Your task to perform on an android device: delete a single message in the gmail app Image 0: 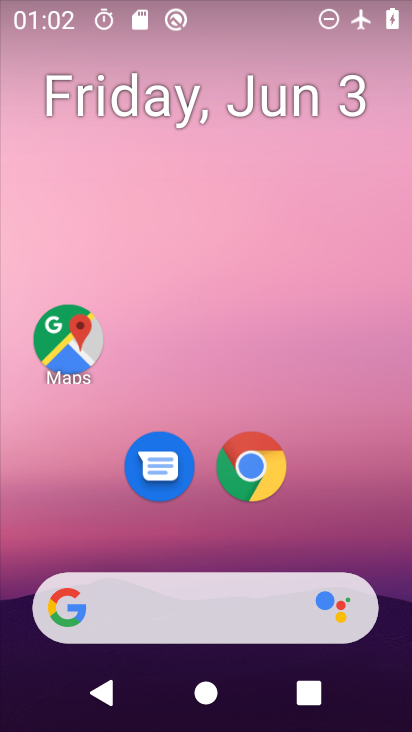
Step 0: drag from (198, 539) to (201, 152)
Your task to perform on an android device: delete a single message in the gmail app Image 1: 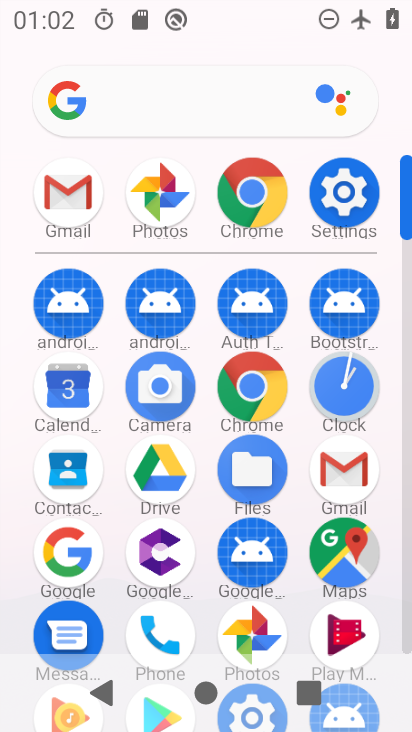
Step 1: click (345, 466)
Your task to perform on an android device: delete a single message in the gmail app Image 2: 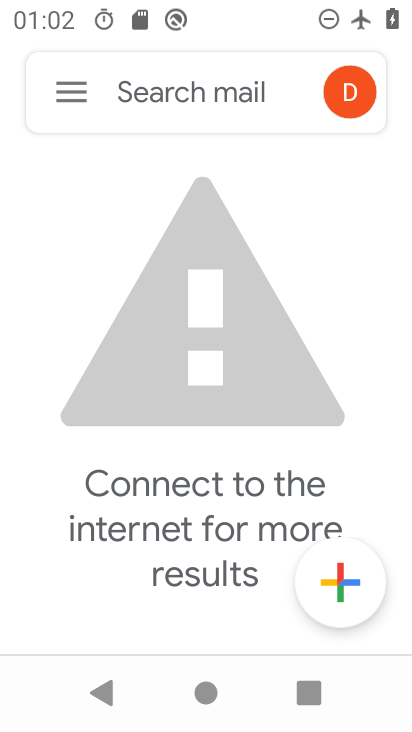
Step 2: click (81, 87)
Your task to perform on an android device: delete a single message in the gmail app Image 3: 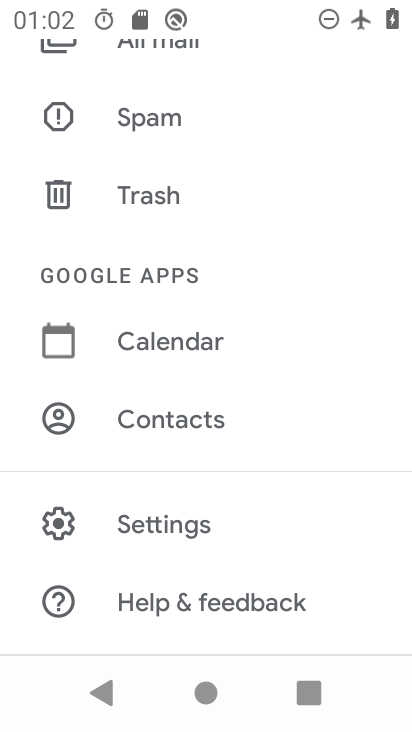
Step 3: drag from (150, 118) to (203, 438)
Your task to perform on an android device: delete a single message in the gmail app Image 4: 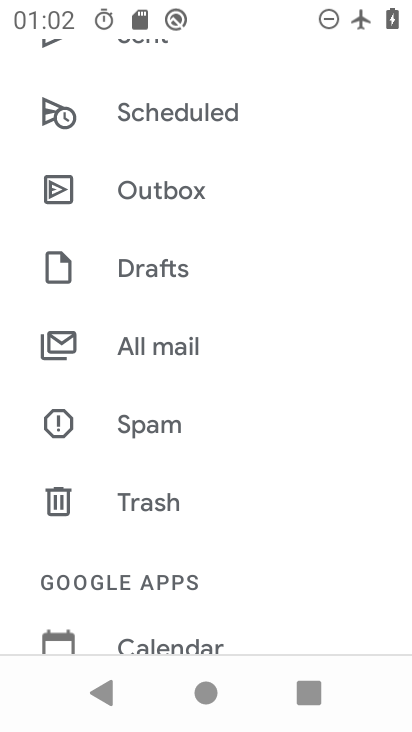
Step 4: drag from (163, 179) to (198, 464)
Your task to perform on an android device: delete a single message in the gmail app Image 5: 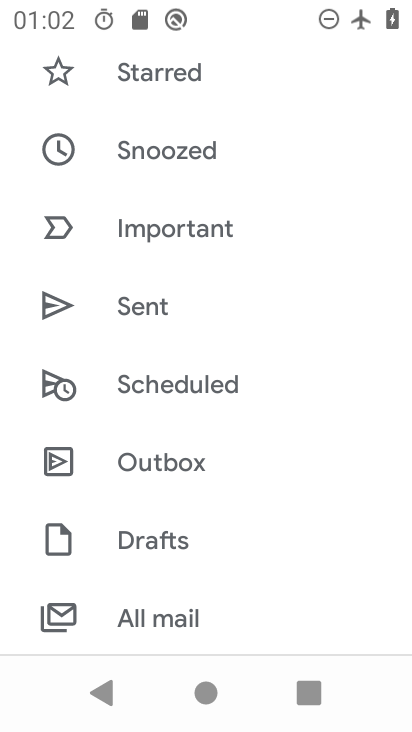
Step 5: drag from (239, 184) to (257, 485)
Your task to perform on an android device: delete a single message in the gmail app Image 6: 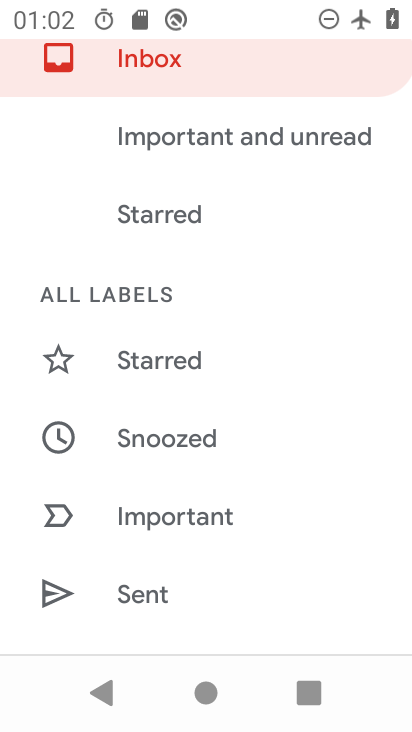
Step 6: drag from (234, 586) to (279, 247)
Your task to perform on an android device: delete a single message in the gmail app Image 7: 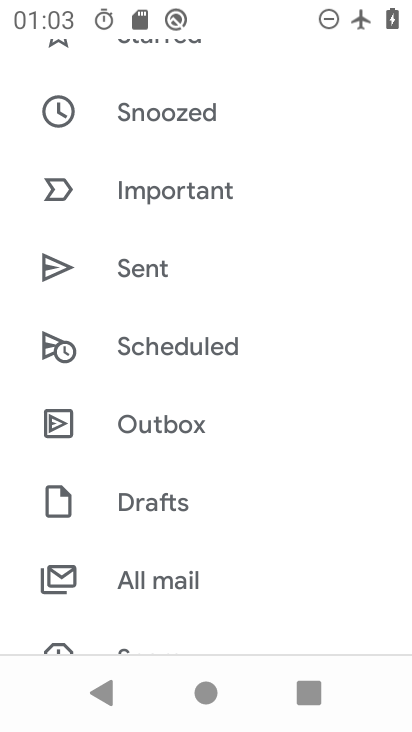
Step 7: drag from (230, 529) to (282, 192)
Your task to perform on an android device: delete a single message in the gmail app Image 8: 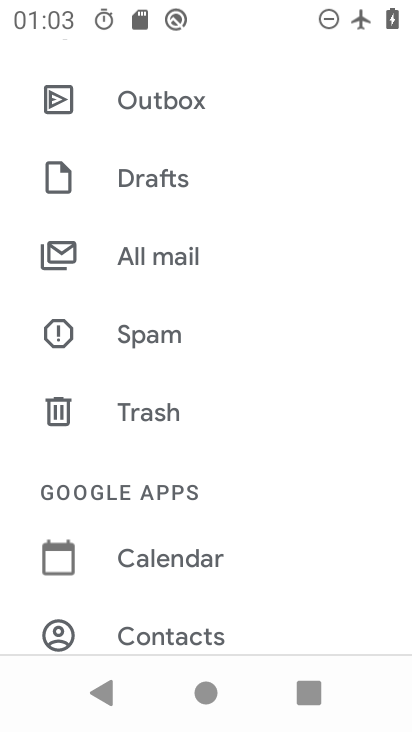
Step 8: click (193, 245)
Your task to perform on an android device: delete a single message in the gmail app Image 9: 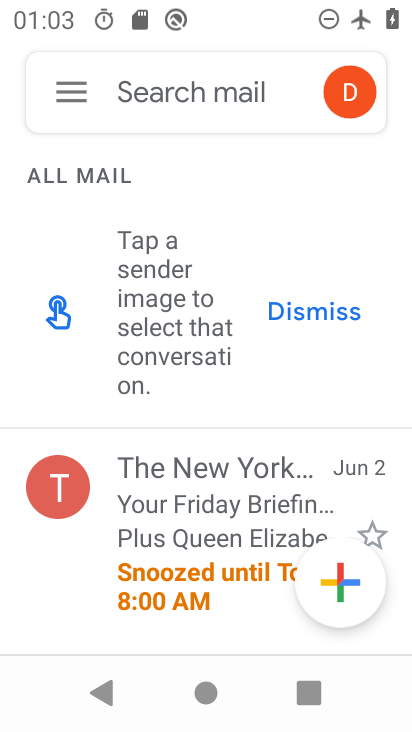
Step 9: click (255, 487)
Your task to perform on an android device: delete a single message in the gmail app Image 10: 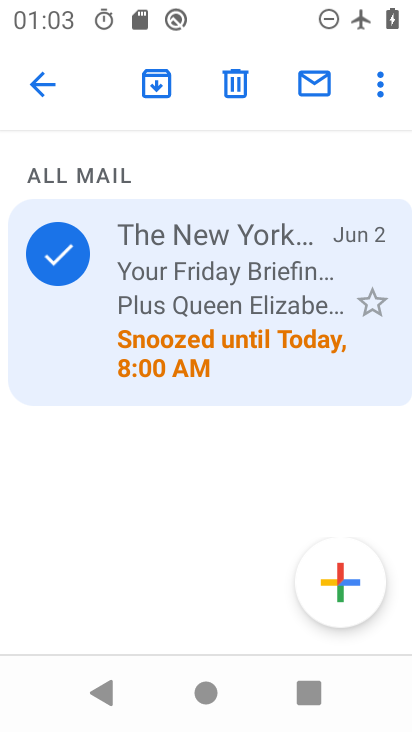
Step 10: click (378, 81)
Your task to perform on an android device: delete a single message in the gmail app Image 11: 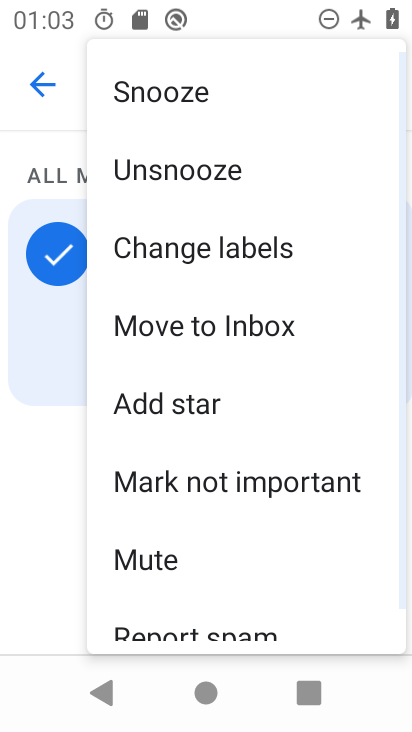
Step 11: drag from (224, 565) to (239, 263)
Your task to perform on an android device: delete a single message in the gmail app Image 12: 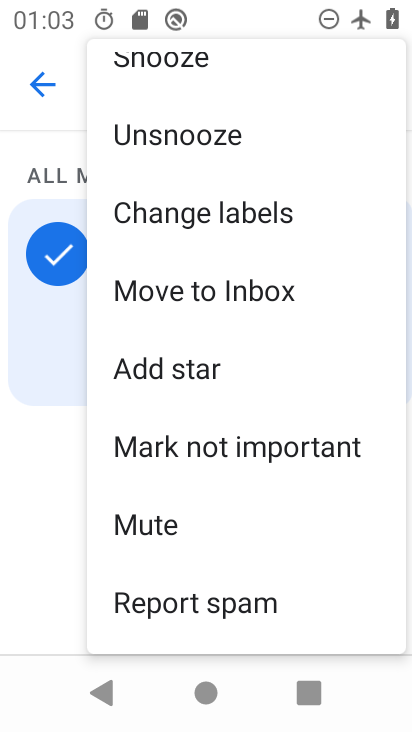
Step 12: click (13, 515)
Your task to perform on an android device: delete a single message in the gmail app Image 13: 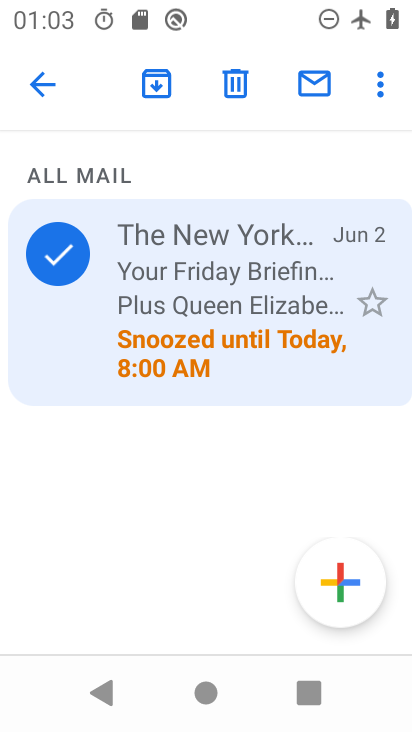
Step 13: click (217, 97)
Your task to perform on an android device: delete a single message in the gmail app Image 14: 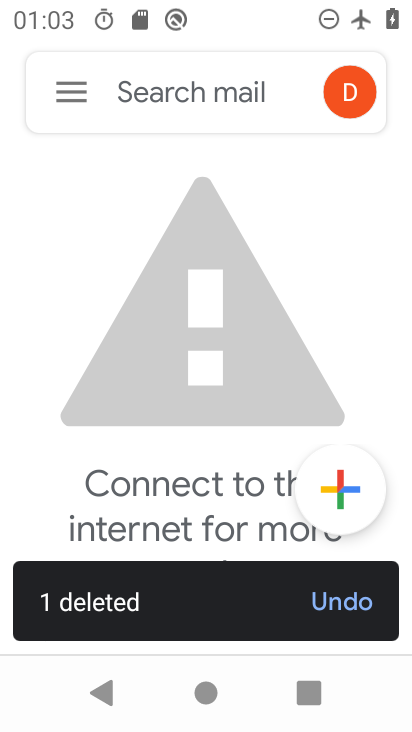
Step 14: task complete